Your task to perform on an android device: Open Google Image 0: 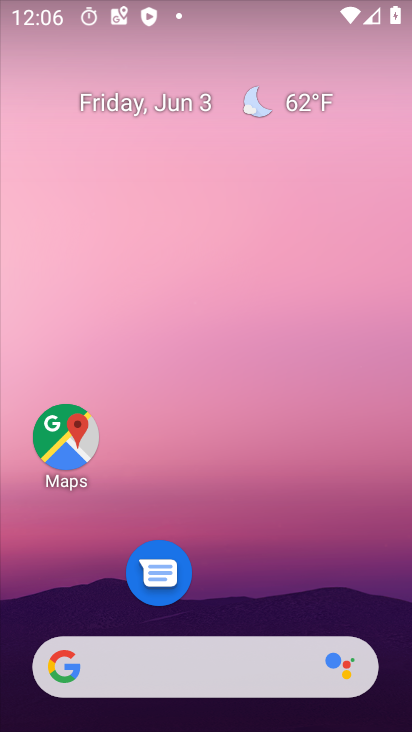
Step 0: drag from (322, 661) to (316, 90)
Your task to perform on an android device: Open Google Image 1: 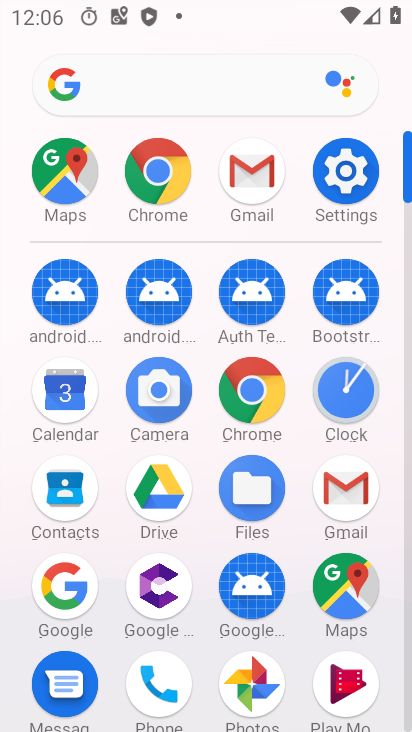
Step 1: click (265, 382)
Your task to perform on an android device: Open Google Image 2: 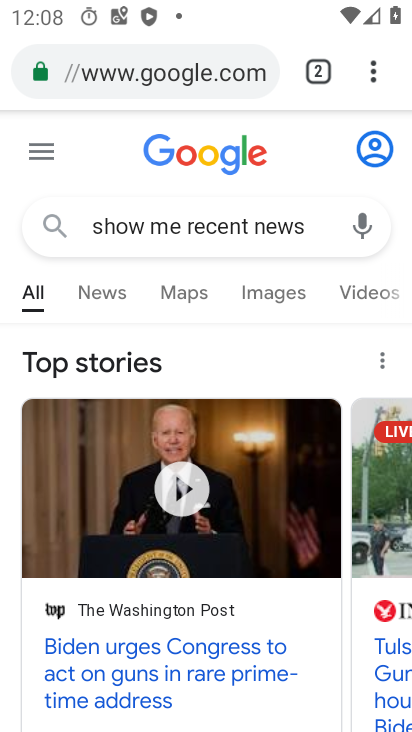
Step 2: click (373, 72)
Your task to perform on an android device: Open Google Image 3: 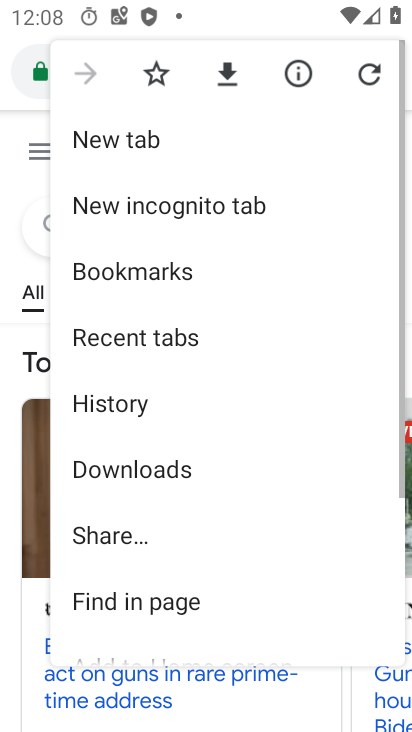
Step 3: click (225, 139)
Your task to perform on an android device: Open Google Image 4: 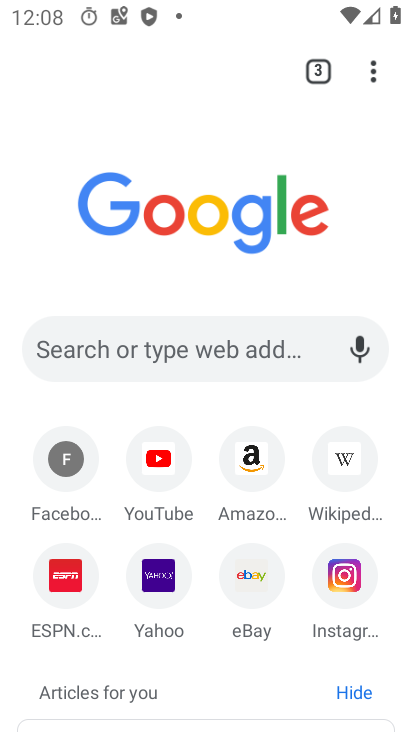
Step 4: task complete